Your task to perform on an android device: change notifications settings Image 0: 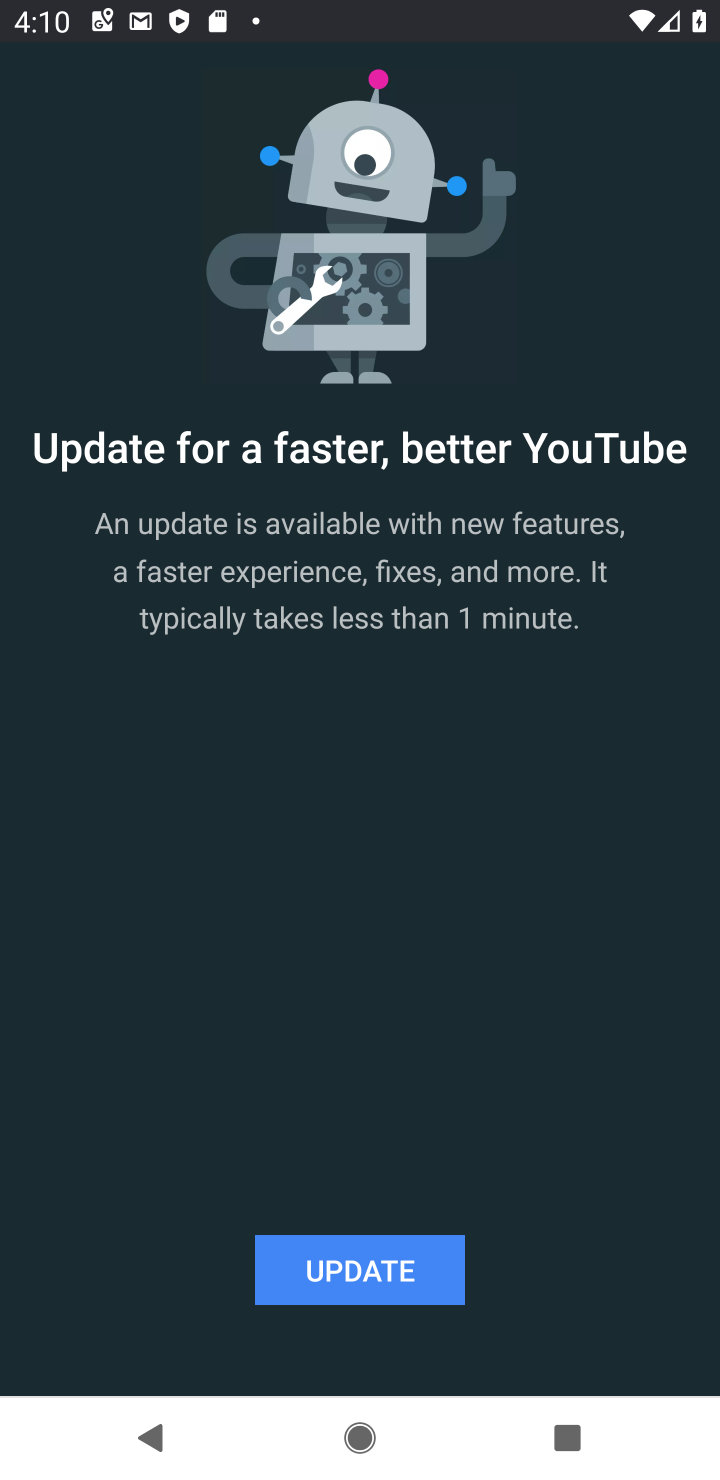
Step 0: press home button
Your task to perform on an android device: change notifications settings Image 1: 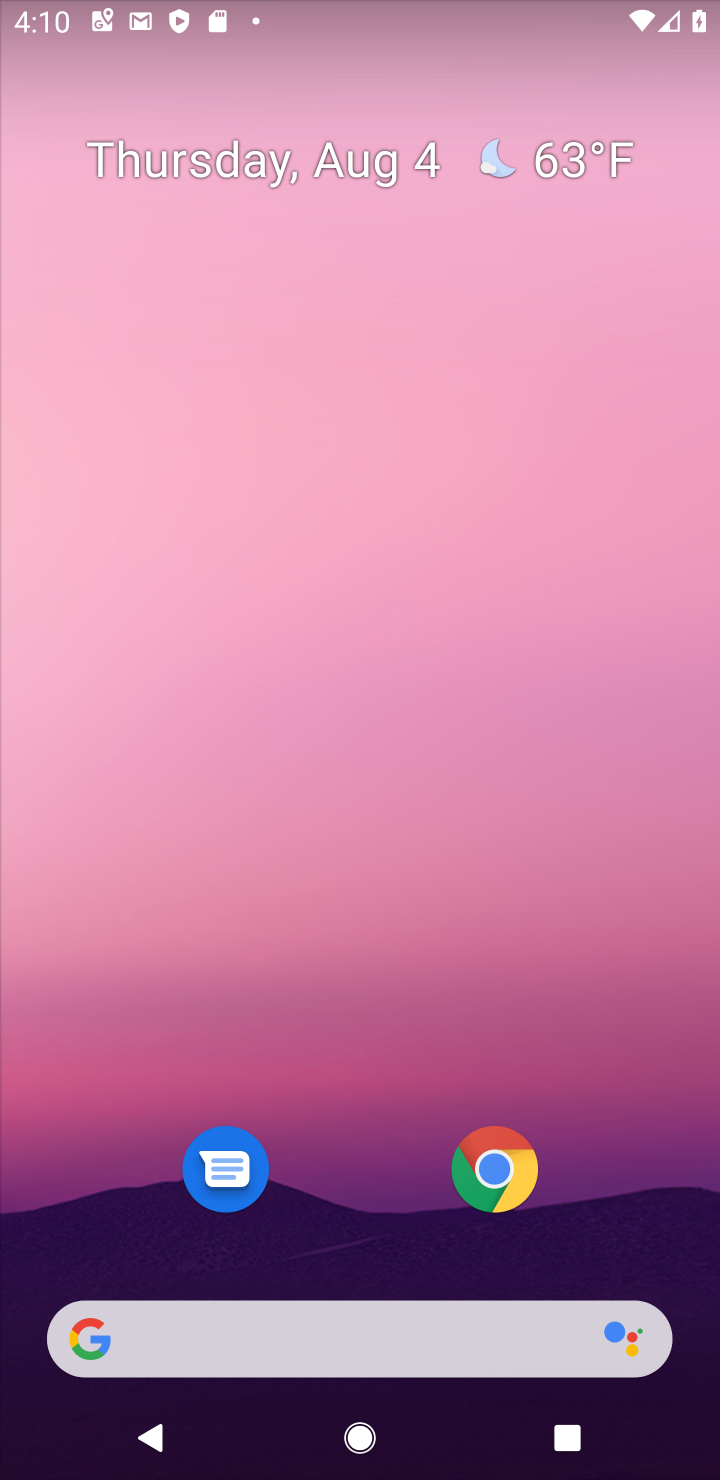
Step 1: drag from (313, 1017) to (403, 212)
Your task to perform on an android device: change notifications settings Image 2: 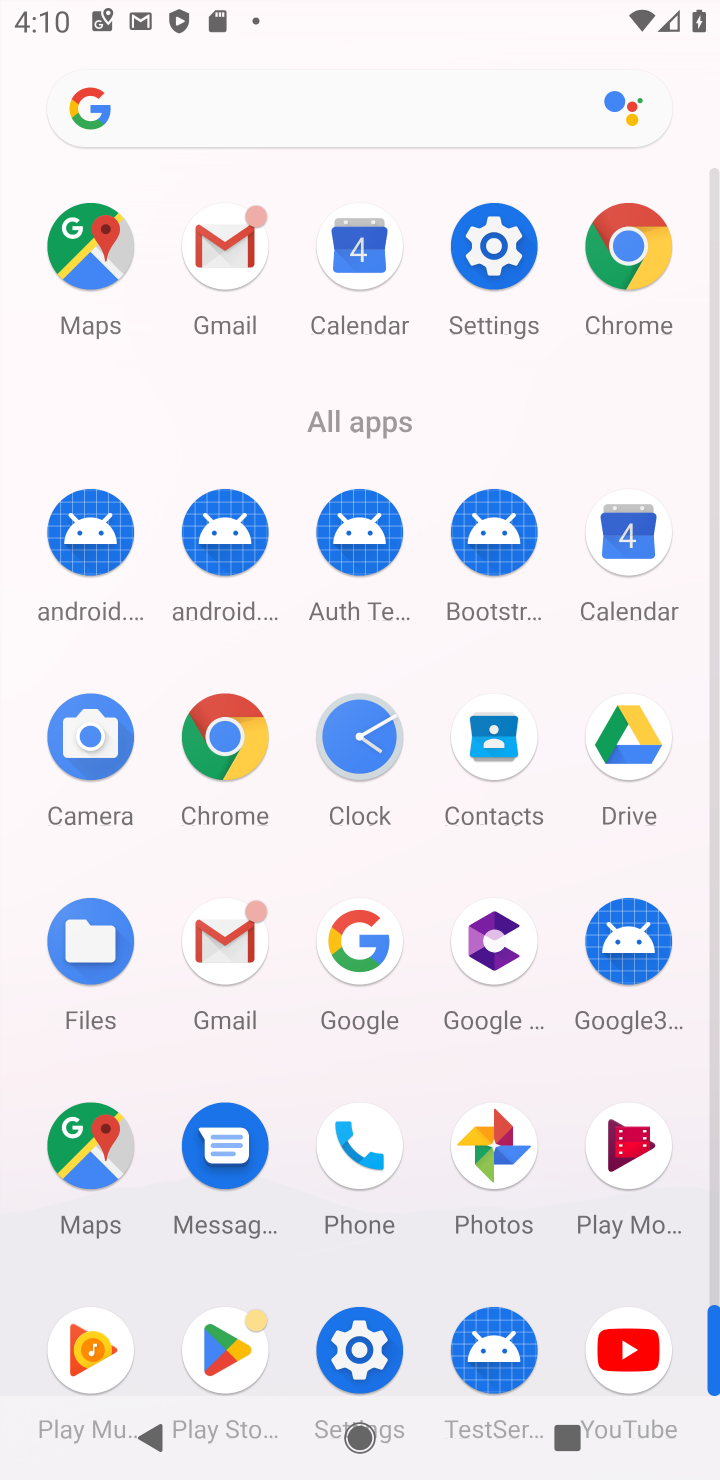
Step 2: click (488, 270)
Your task to perform on an android device: change notifications settings Image 3: 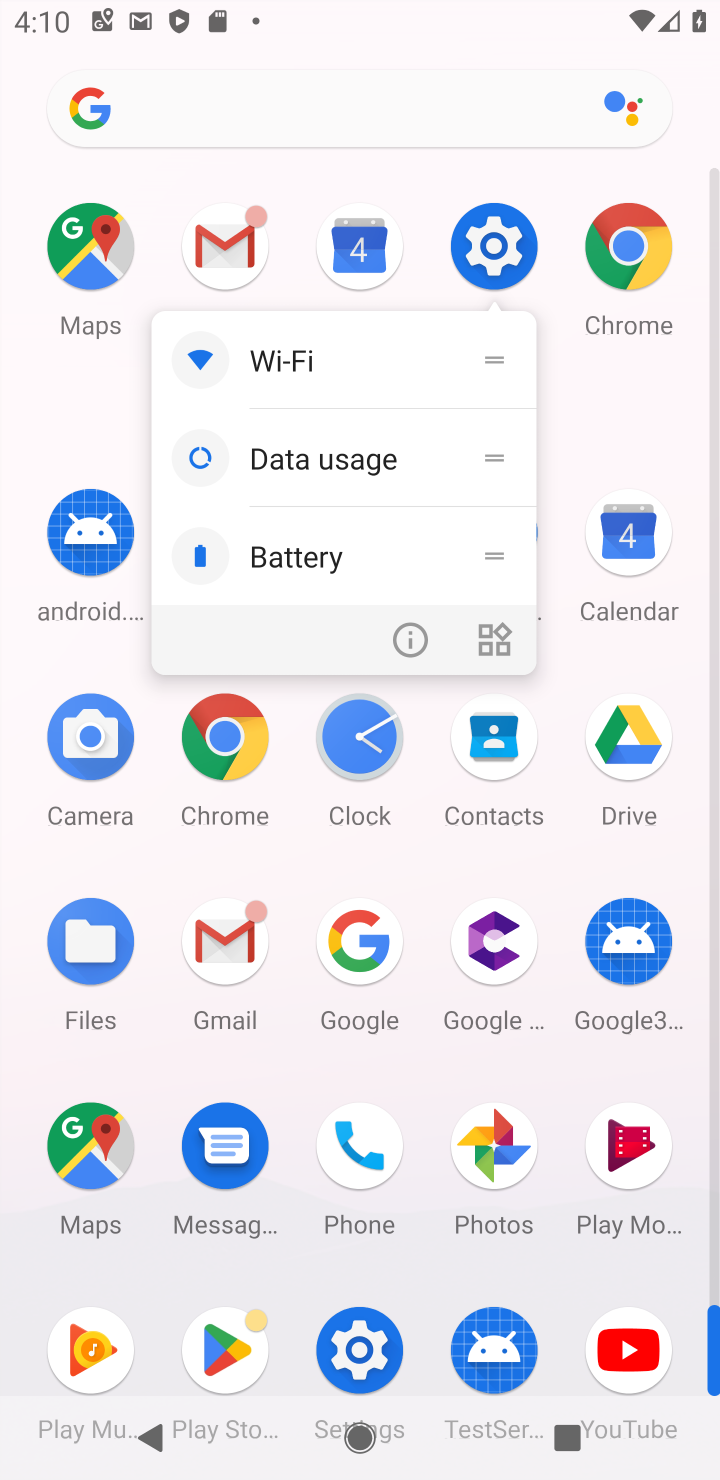
Step 3: click (508, 229)
Your task to perform on an android device: change notifications settings Image 4: 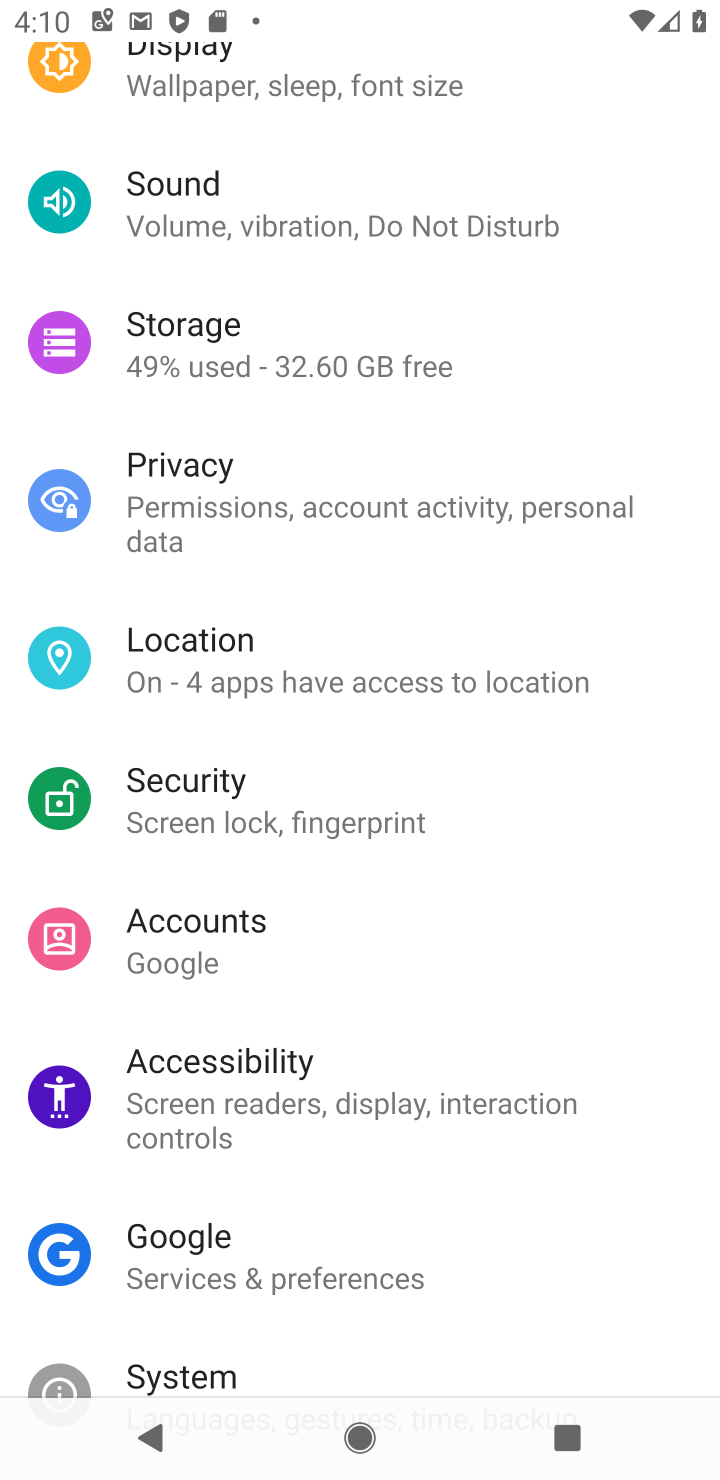
Step 4: drag from (423, 302) to (390, 876)
Your task to perform on an android device: change notifications settings Image 5: 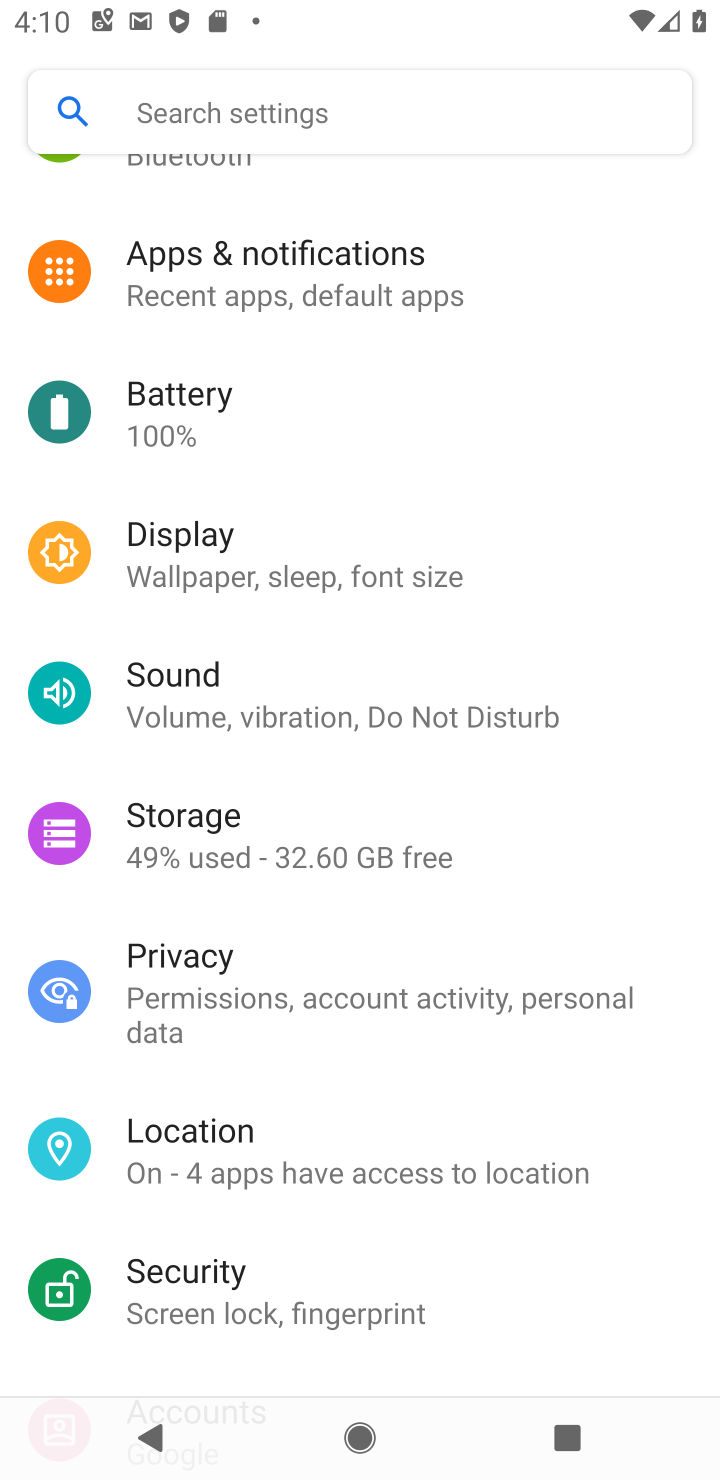
Step 5: click (355, 246)
Your task to perform on an android device: change notifications settings Image 6: 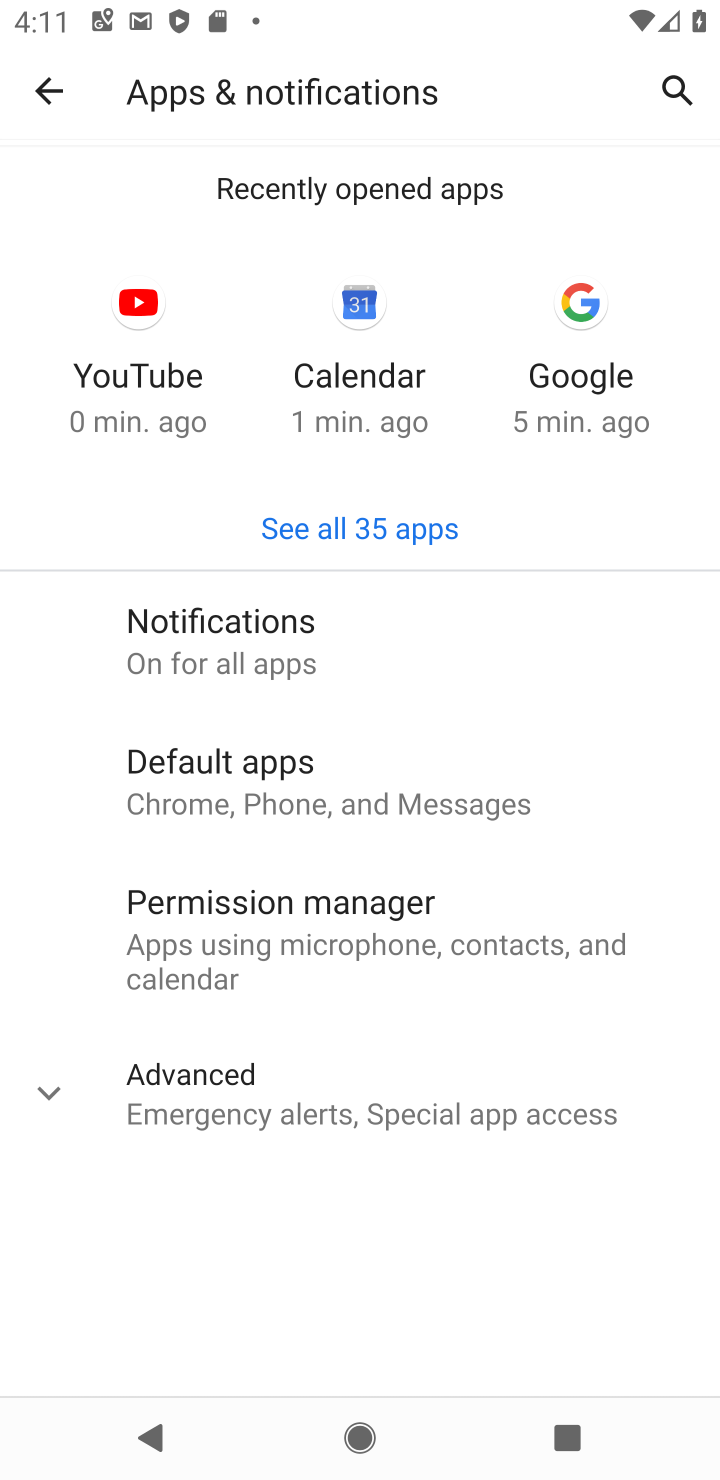
Step 6: click (272, 638)
Your task to perform on an android device: change notifications settings Image 7: 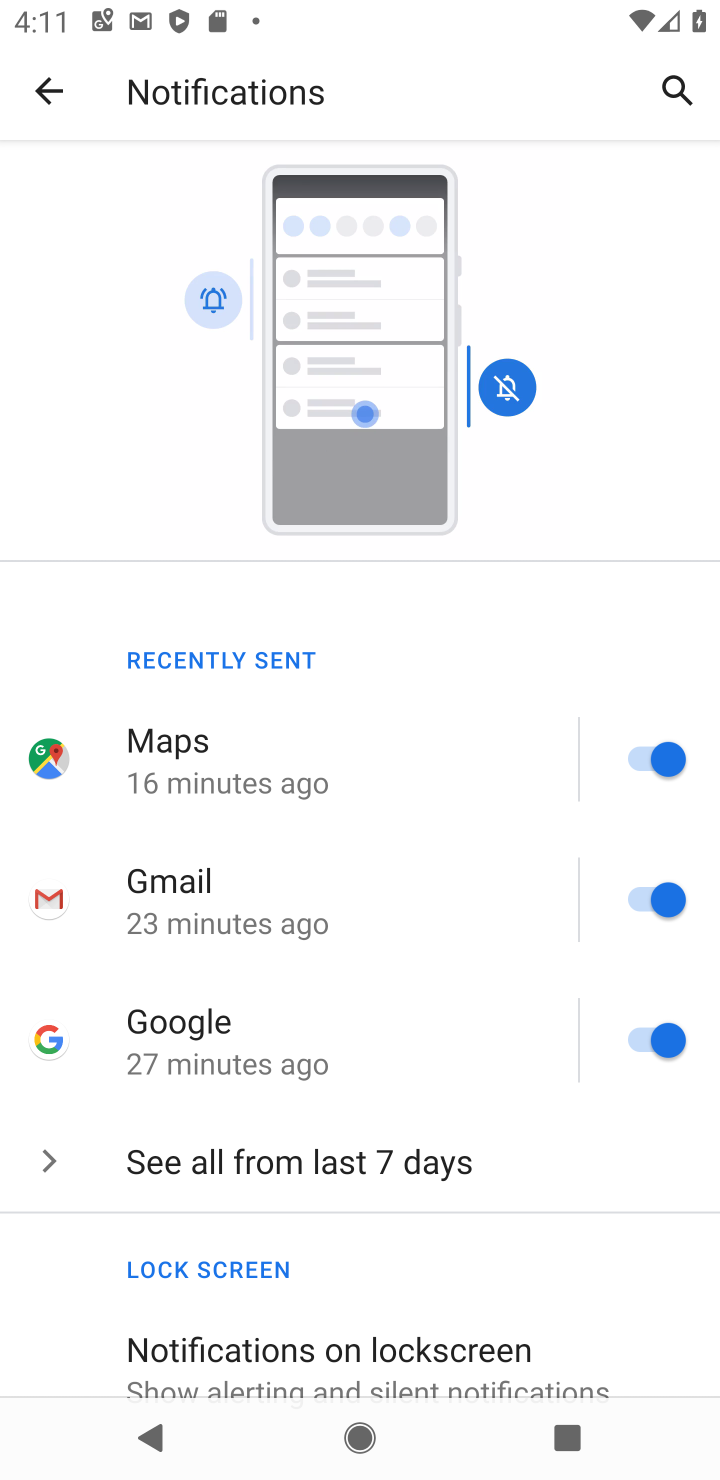
Step 7: drag from (255, 1068) to (330, 496)
Your task to perform on an android device: change notifications settings Image 8: 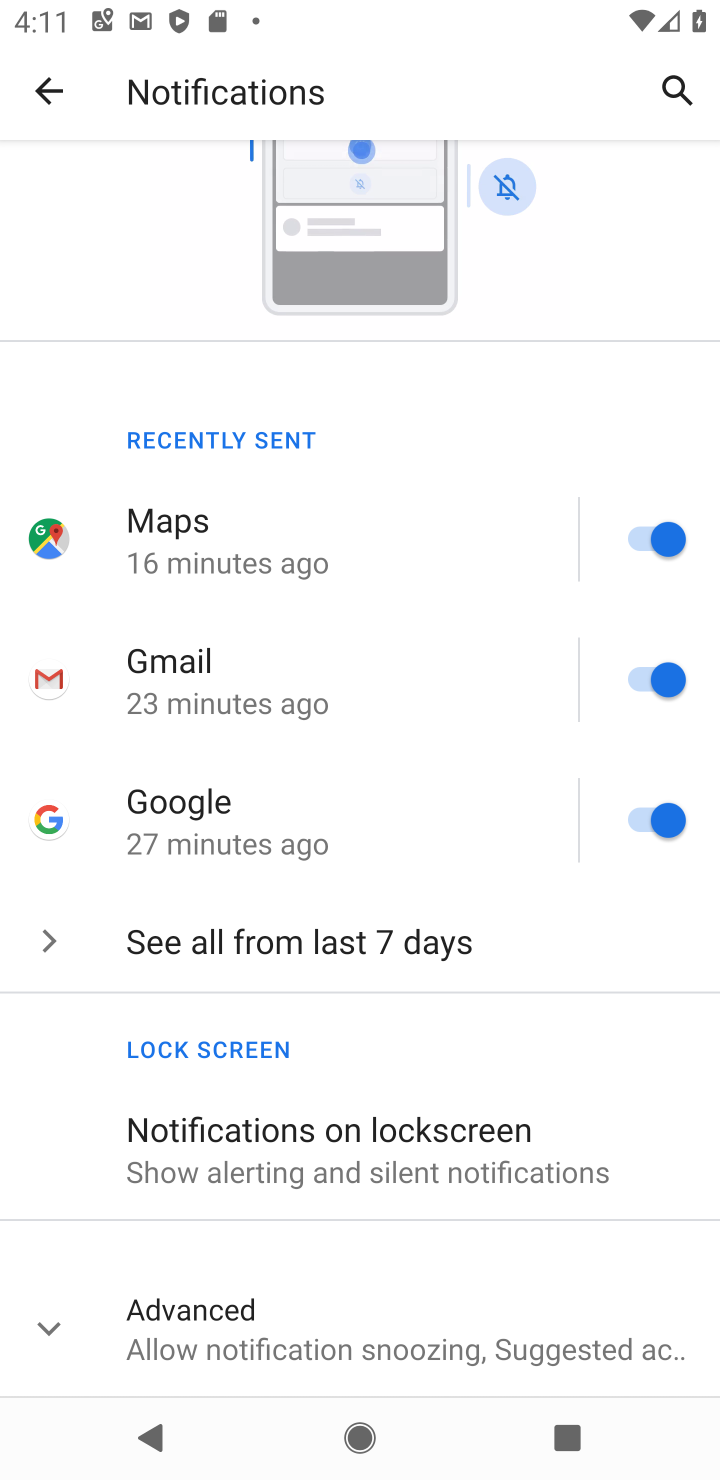
Step 8: click (248, 918)
Your task to perform on an android device: change notifications settings Image 9: 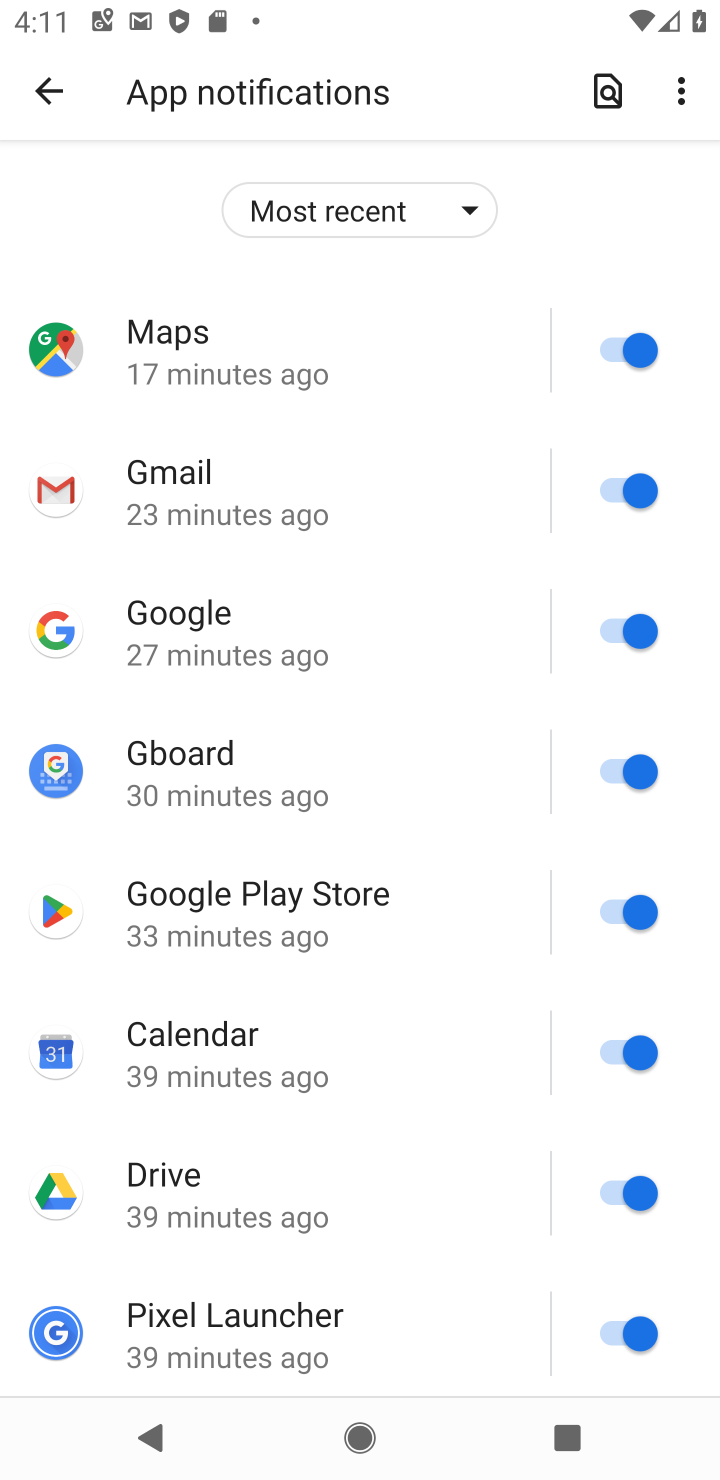
Step 9: click (631, 365)
Your task to perform on an android device: change notifications settings Image 10: 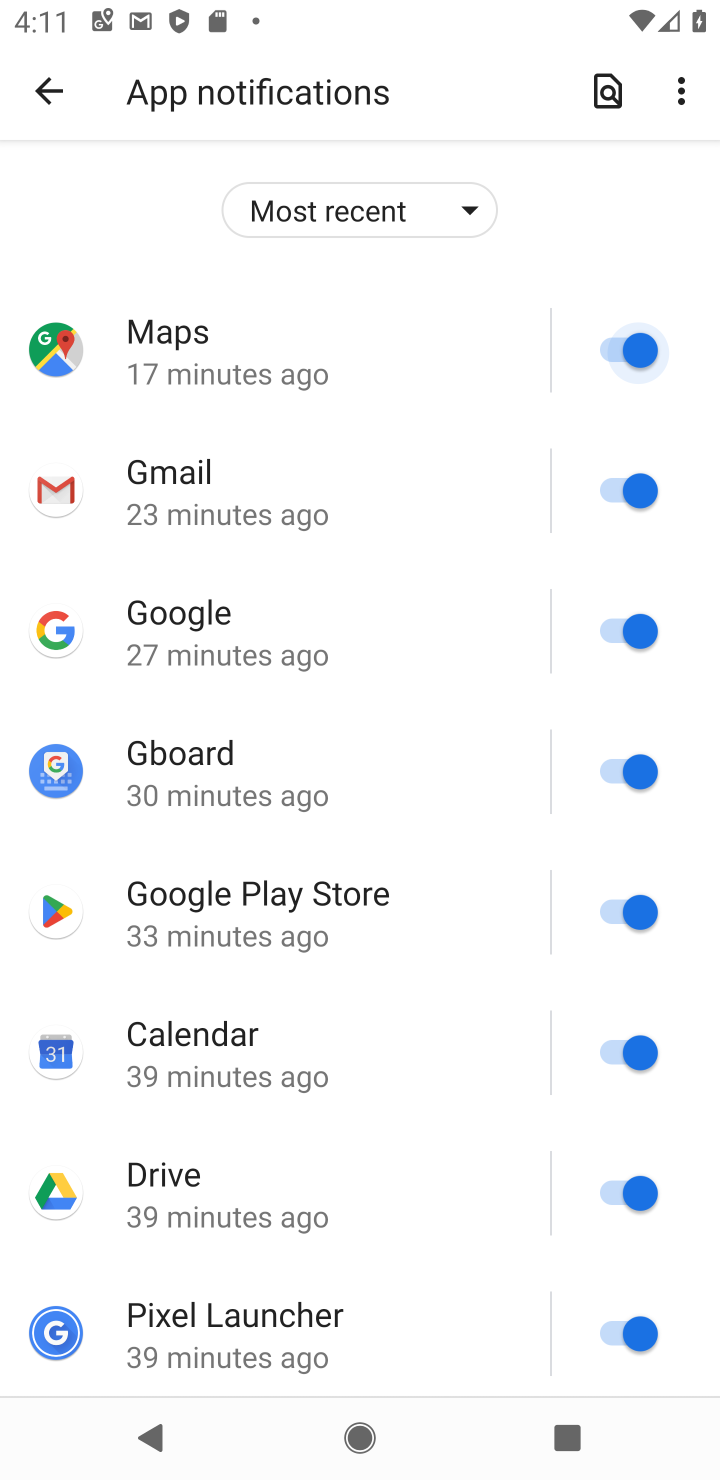
Step 10: click (599, 480)
Your task to perform on an android device: change notifications settings Image 11: 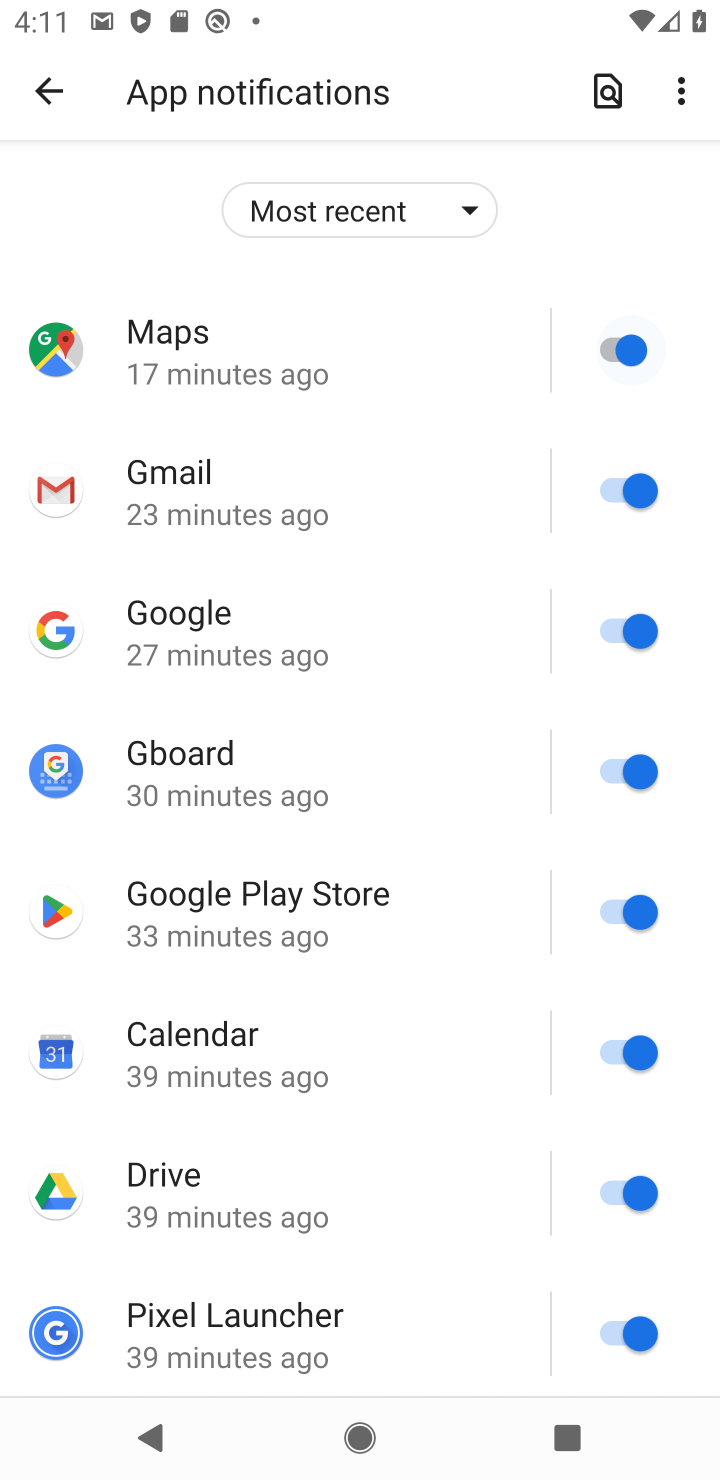
Step 11: click (591, 635)
Your task to perform on an android device: change notifications settings Image 12: 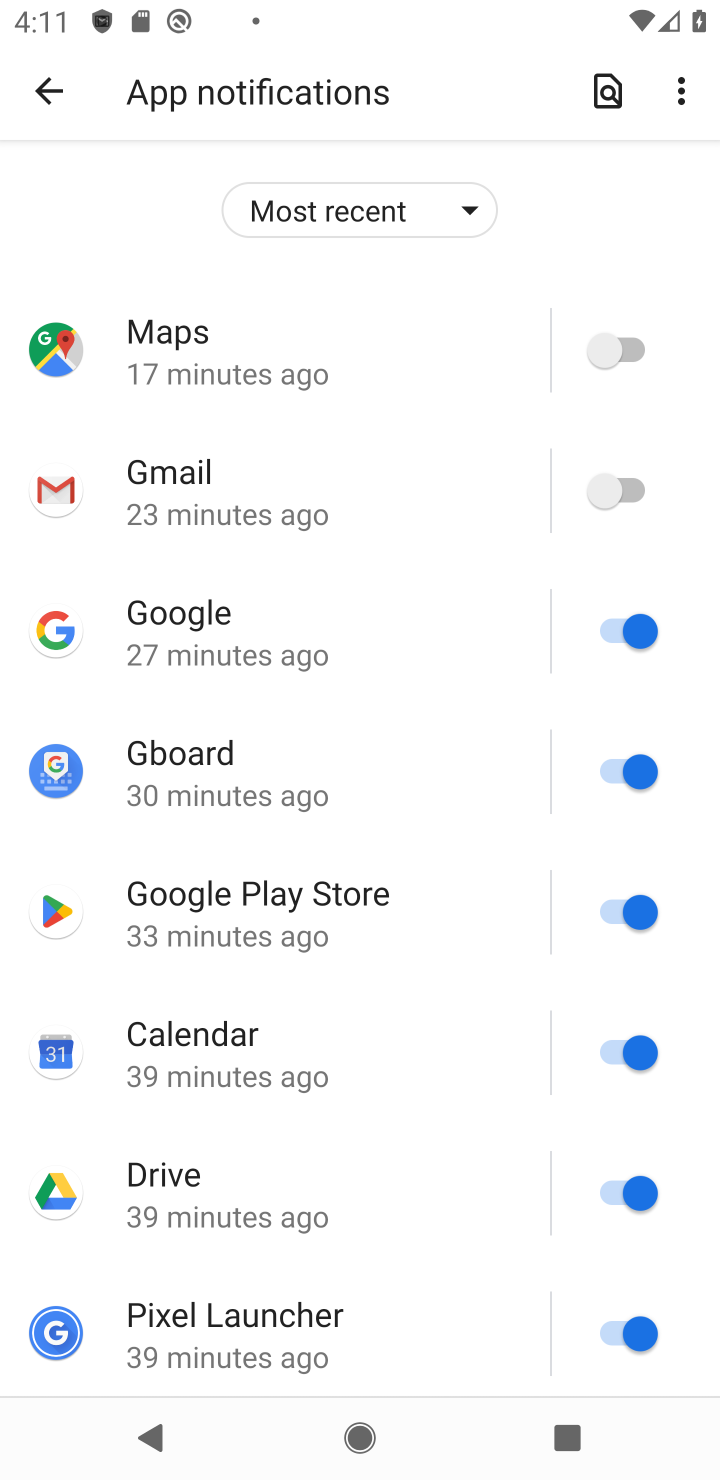
Step 12: click (572, 769)
Your task to perform on an android device: change notifications settings Image 13: 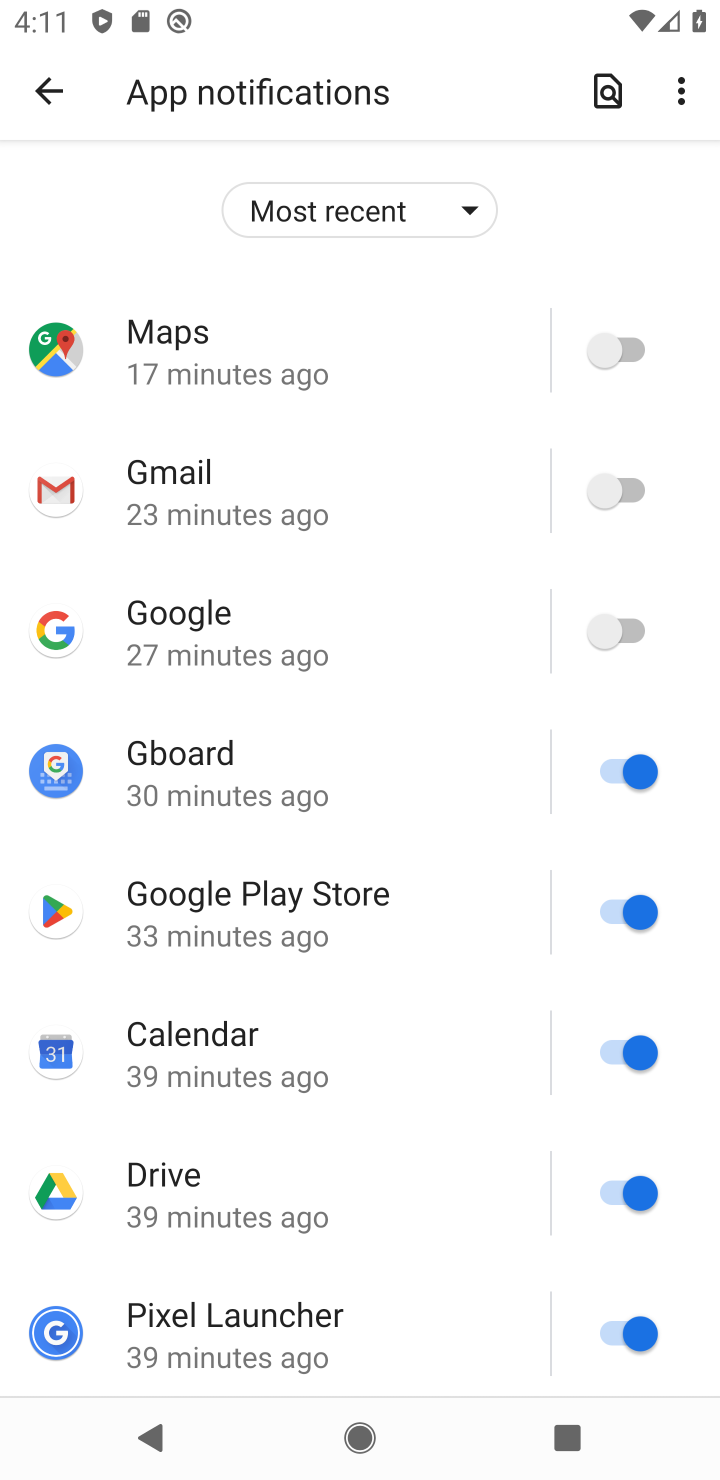
Step 13: click (597, 866)
Your task to perform on an android device: change notifications settings Image 14: 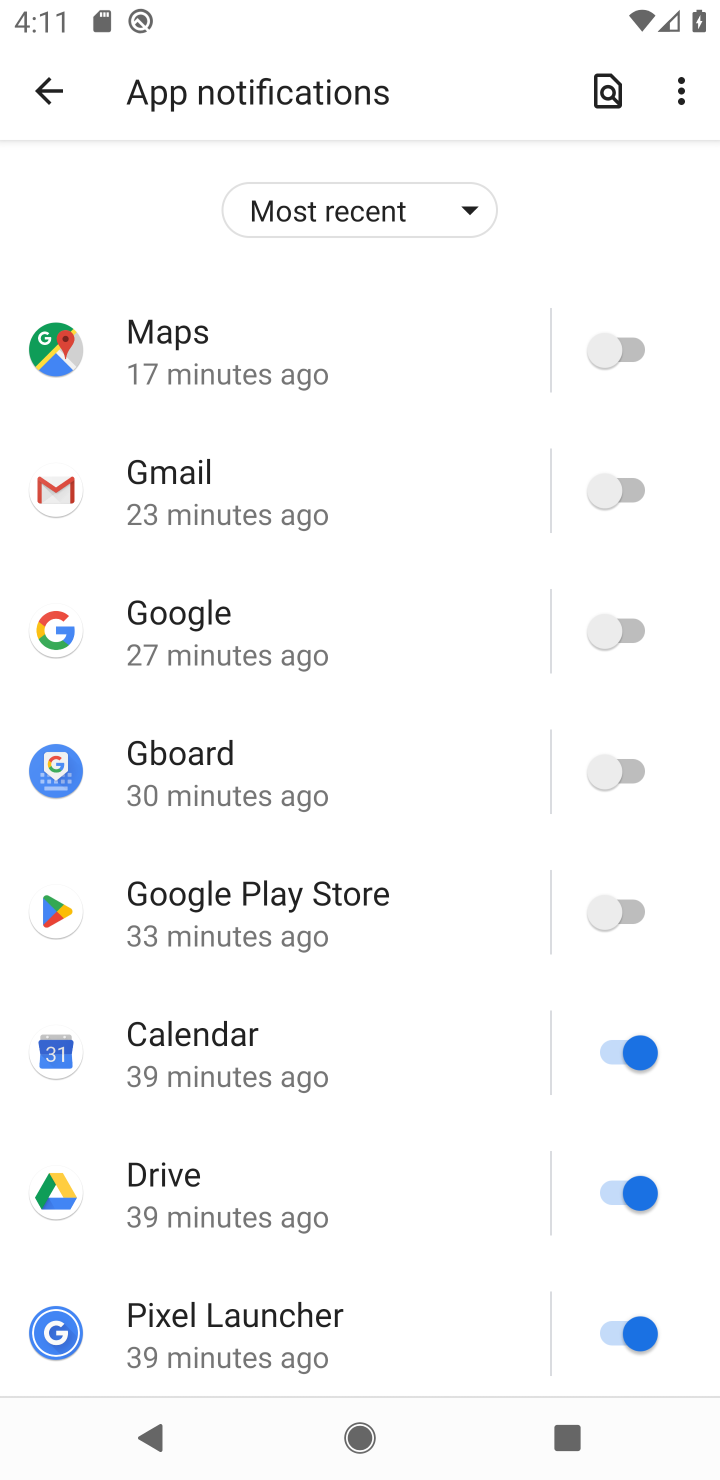
Step 14: click (569, 1054)
Your task to perform on an android device: change notifications settings Image 15: 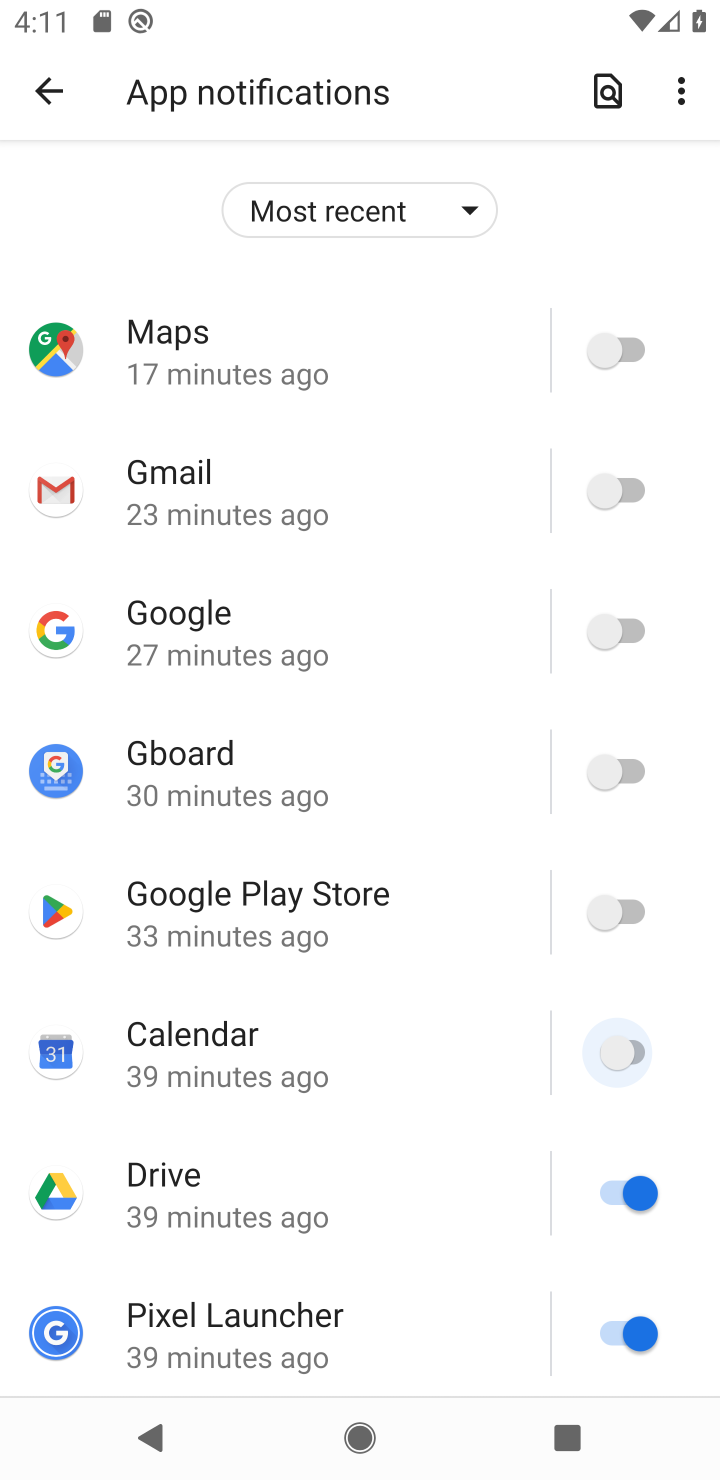
Step 15: click (598, 1185)
Your task to perform on an android device: change notifications settings Image 16: 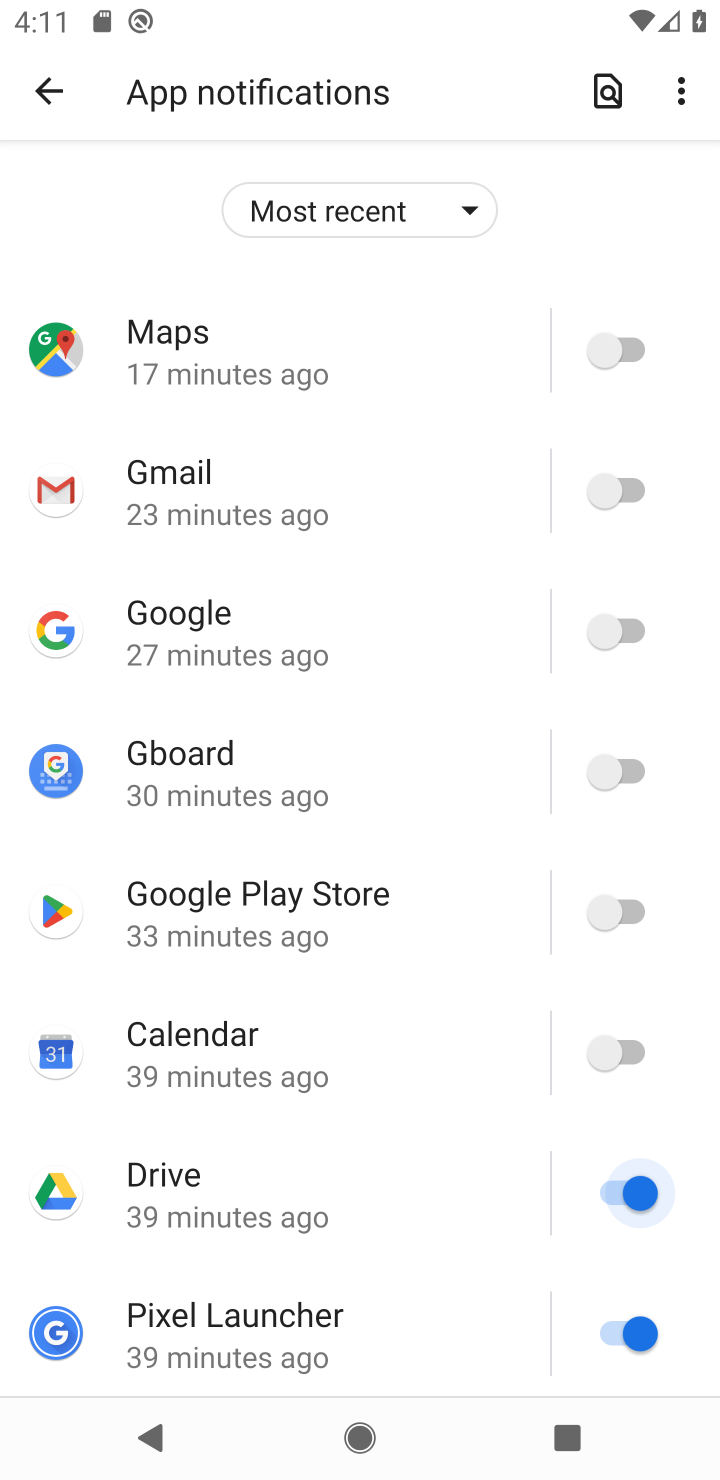
Step 16: click (581, 1322)
Your task to perform on an android device: change notifications settings Image 17: 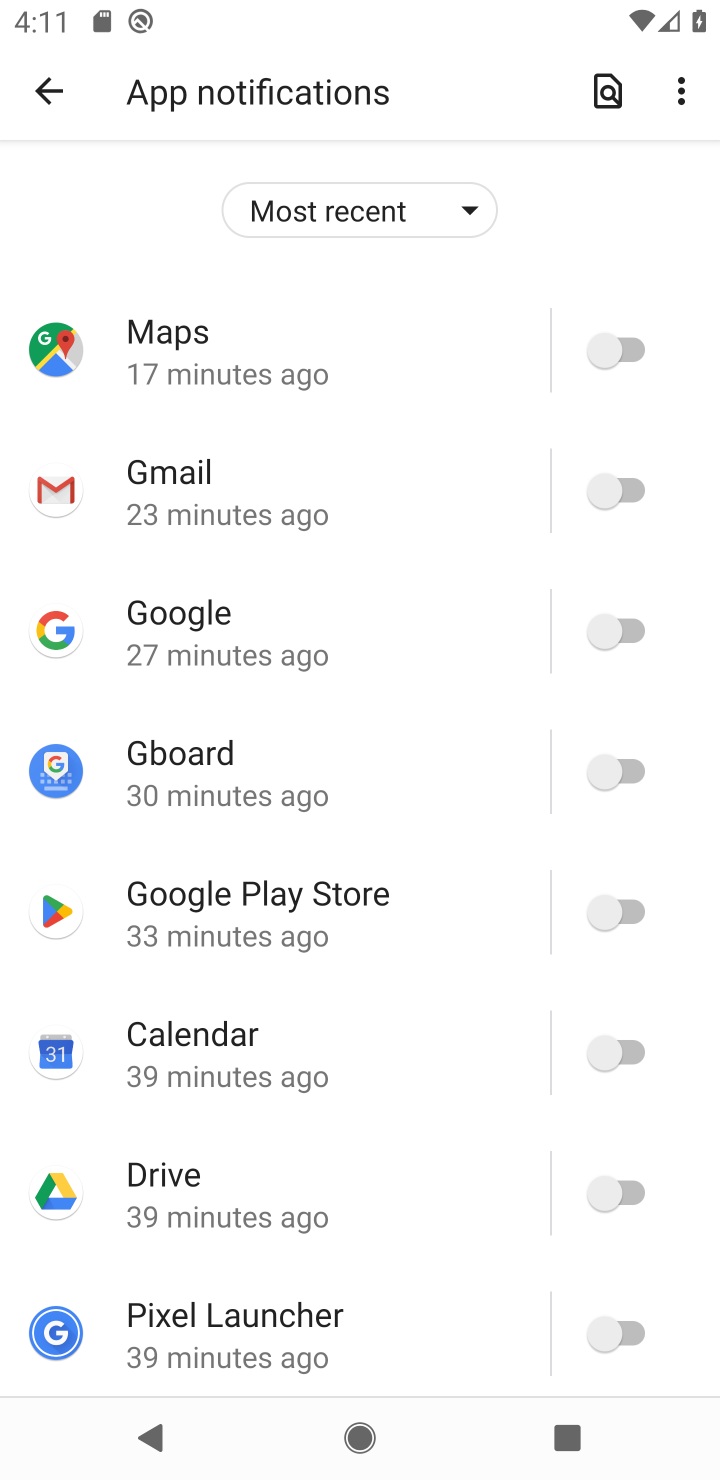
Step 17: task complete